Your task to perform on an android device: What's the weather? Image 0: 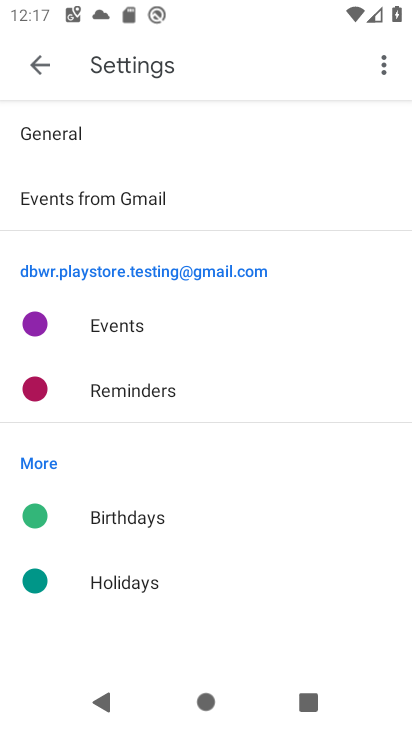
Step 0: press home button
Your task to perform on an android device: What's the weather? Image 1: 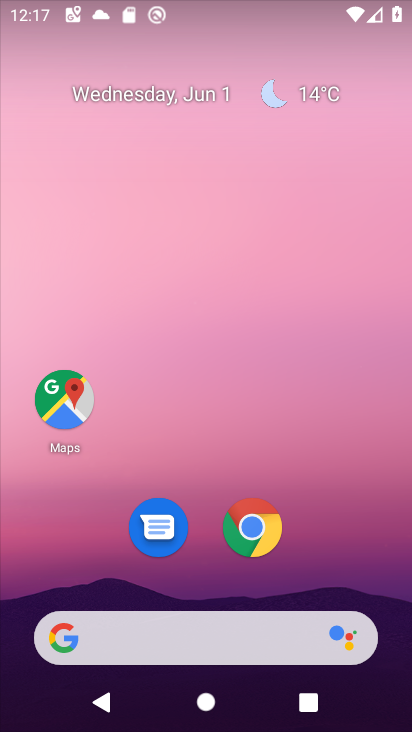
Step 1: click (318, 96)
Your task to perform on an android device: What's the weather? Image 2: 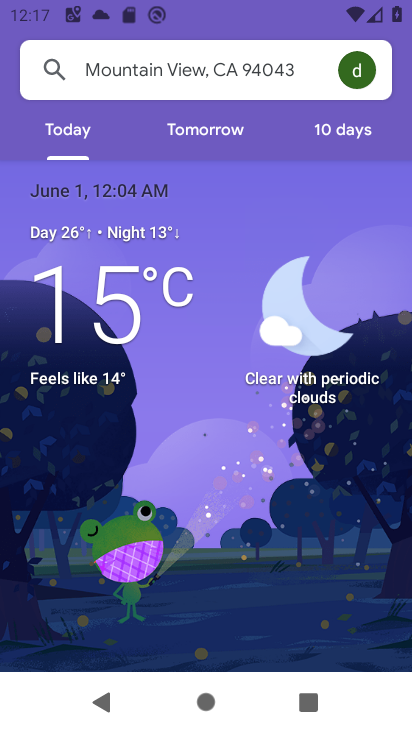
Step 2: task complete